Your task to perform on an android device: Go to location settings Image 0: 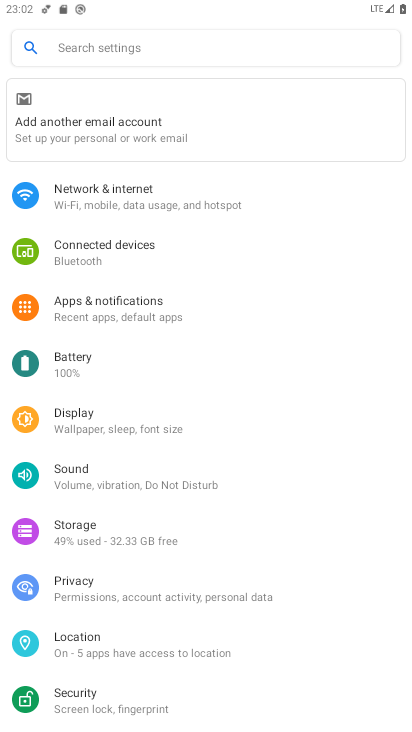
Step 0: press home button
Your task to perform on an android device: Go to location settings Image 1: 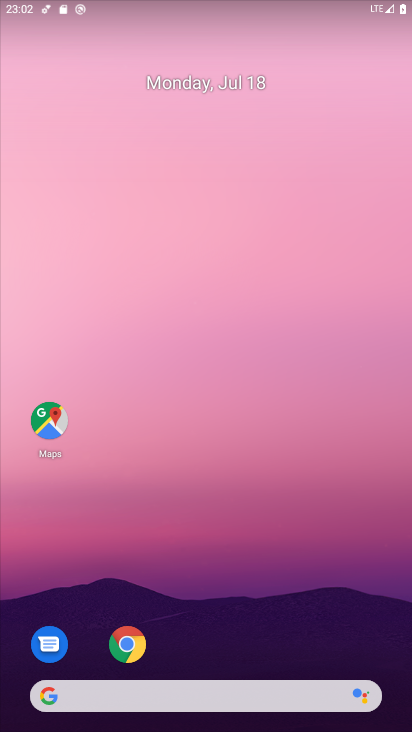
Step 1: drag from (348, 624) to (359, 123)
Your task to perform on an android device: Go to location settings Image 2: 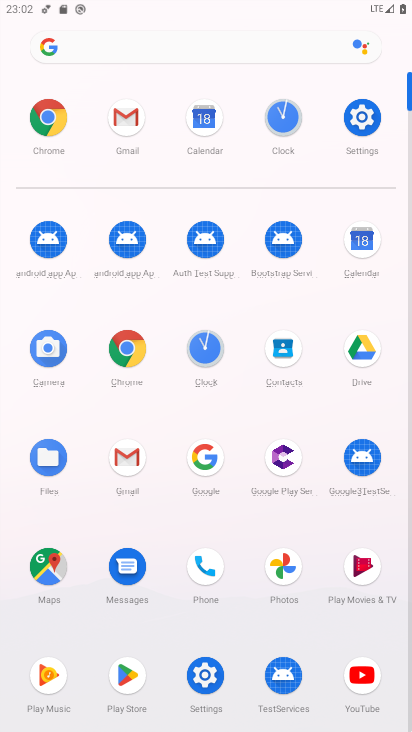
Step 2: click (364, 128)
Your task to perform on an android device: Go to location settings Image 3: 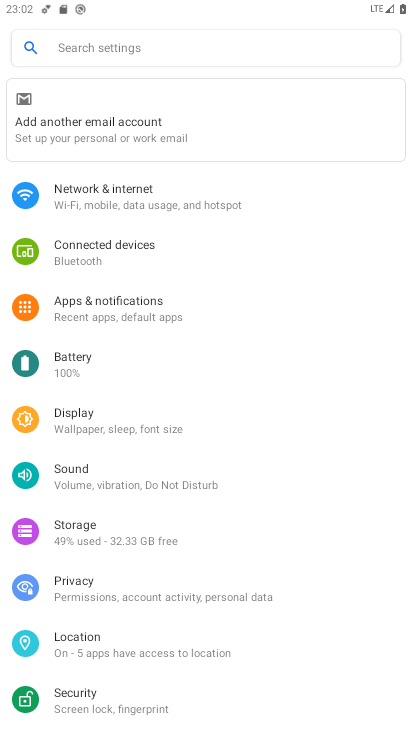
Step 3: drag from (333, 544) to (345, 435)
Your task to perform on an android device: Go to location settings Image 4: 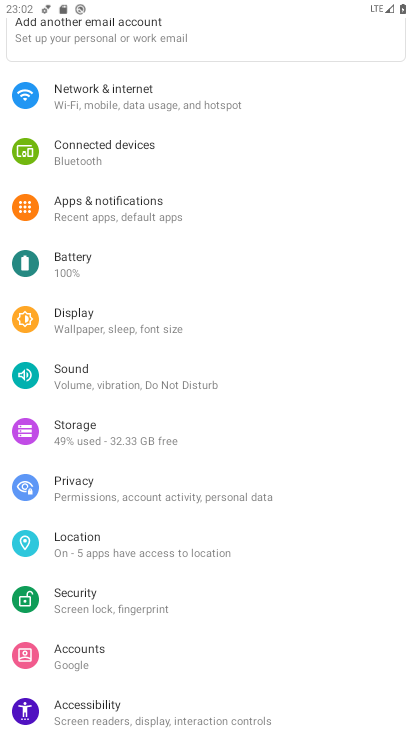
Step 4: drag from (332, 572) to (338, 410)
Your task to perform on an android device: Go to location settings Image 5: 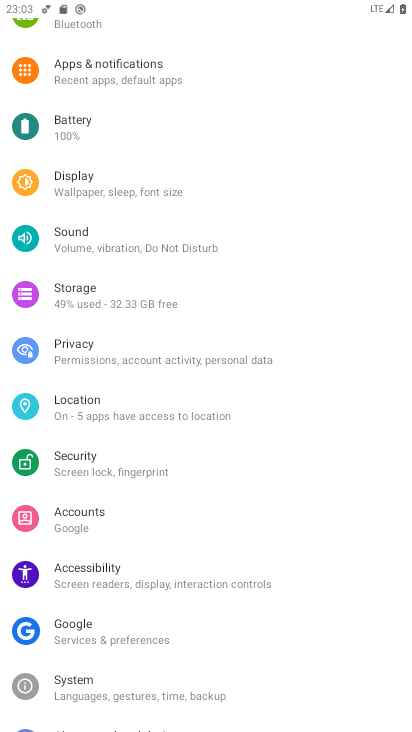
Step 5: drag from (316, 569) to (326, 446)
Your task to perform on an android device: Go to location settings Image 6: 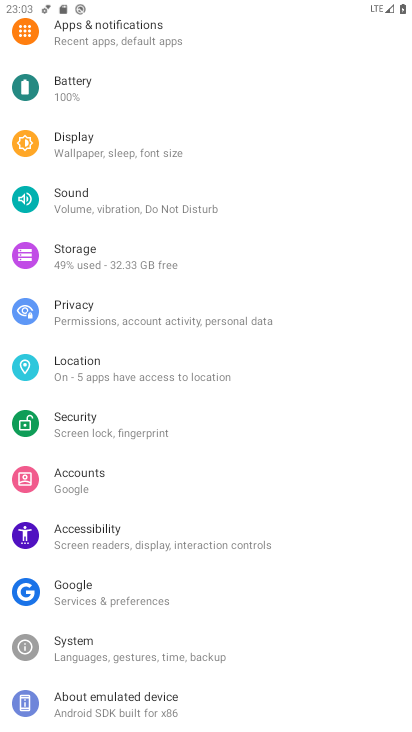
Step 6: drag from (314, 589) to (335, 443)
Your task to perform on an android device: Go to location settings Image 7: 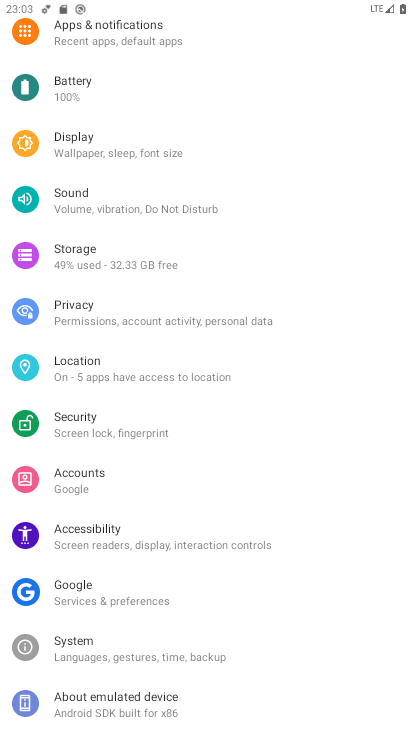
Step 7: drag from (333, 299) to (330, 444)
Your task to perform on an android device: Go to location settings Image 8: 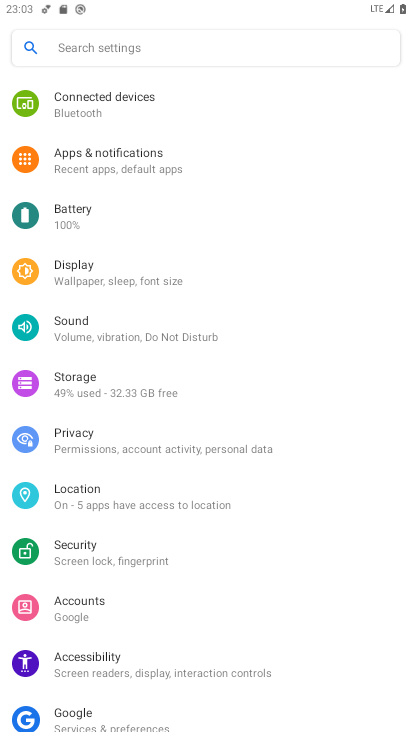
Step 8: drag from (316, 290) to (313, 443)
Your task to perform on an android device: Go to location settings Image 9: 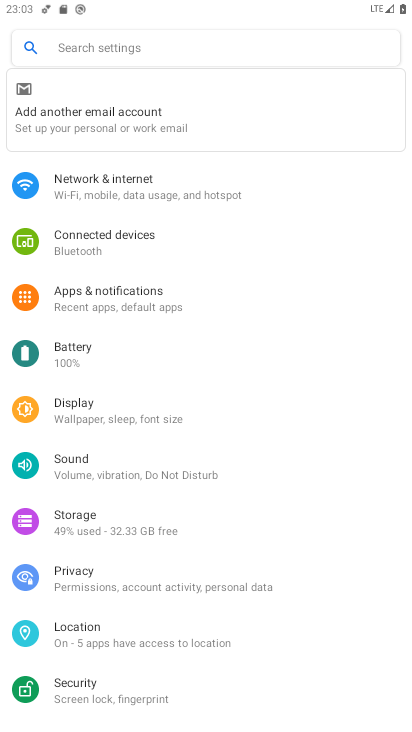
Step 9: drag from (306, 300) to (307, 437)
Your task to perform on an android device: Go to location settings Image 10: 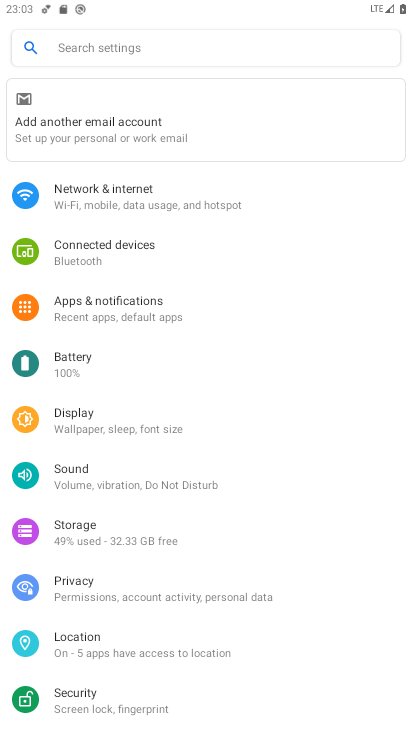
Step 10: click (229, 652)
Your task to perform on an android device: Go to location settings Image 11: 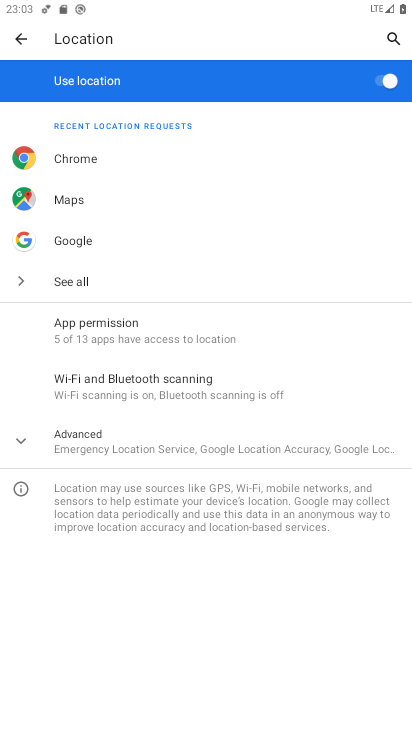
Step 11: task complete